Your task to perform on an android device: Open Amazon Image 0: 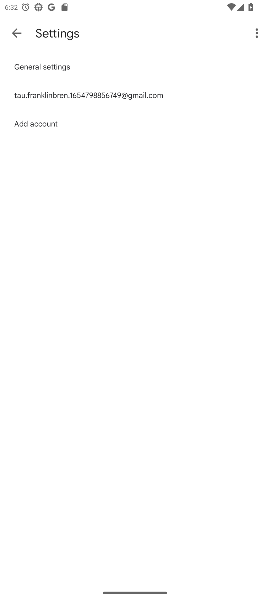
Step 0: press home button
Your task to perform on an android device: Open Amazon Image 1: 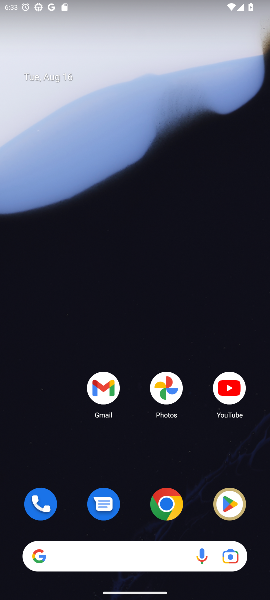
Step 1: click (72, 556)
Your task to perform on an android device: Open Amazon Image 2: 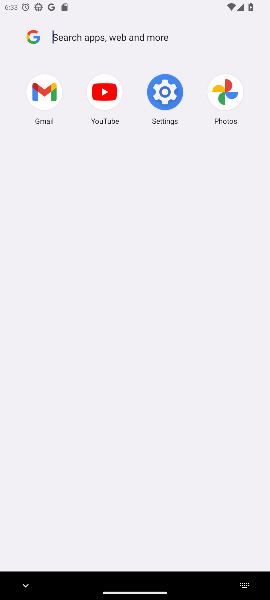
Step 2: type "Amazon"
Your task to perform on an android device: Open Amazon Image 3: 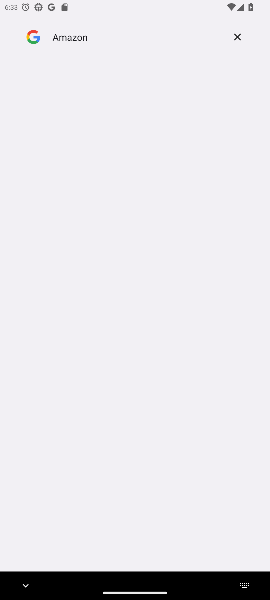
Step 3: type ""
Your task to perform on an android device: Open Amazon Image 4: 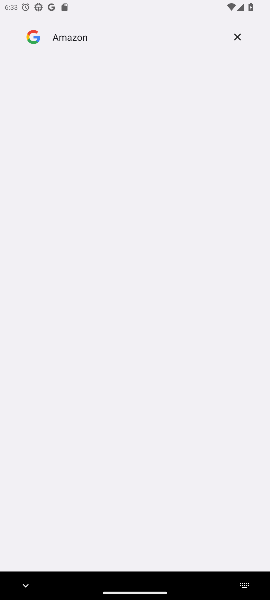
Step 4: type ""
Your task to perform on an android device: Open Amazon Image 5: 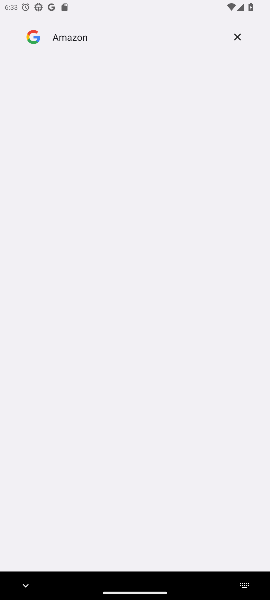
Step 5: type ""
Your task to perform on an android device: Open Amazon Image 6: 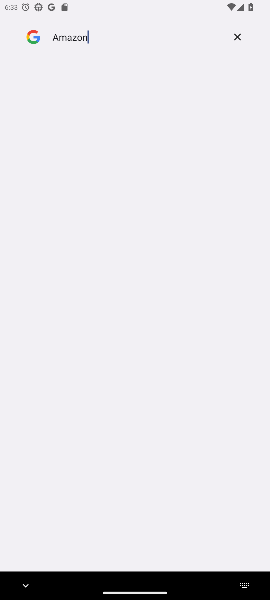
Step 6: task complete